Your task to perform on an android device: open device folders in google photos Image 0: 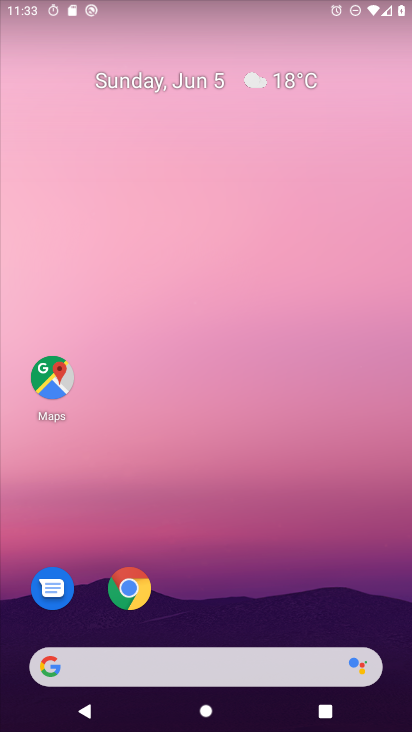
Step 0: drag from (269, 589) to (327, 291)
Your task to perform on an android device: open device folders in google photos Image 1: 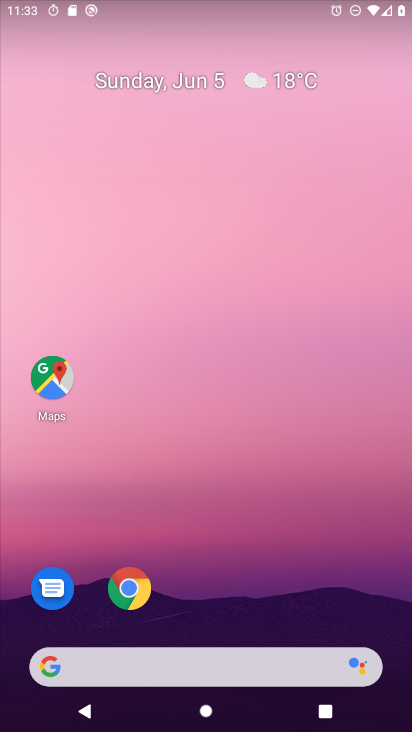
Step 1: drag from (258, 585) to (299, 196)
Your task to perform on an android device: open device folders in google photos Image 2: 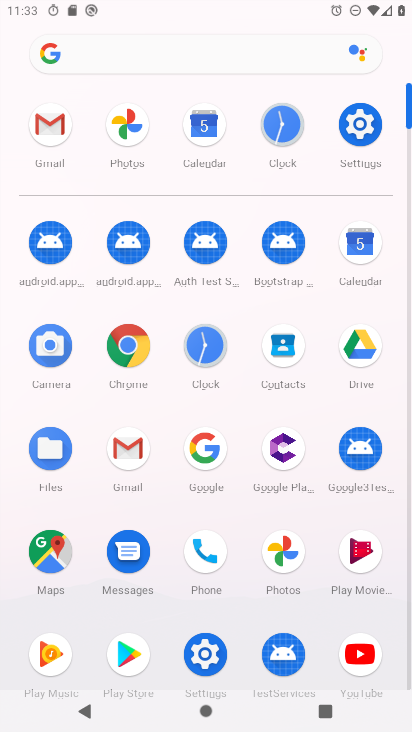
Step 2: click (280, 561)
Your task to perform on an android device: open device folders in google photos Image 3: 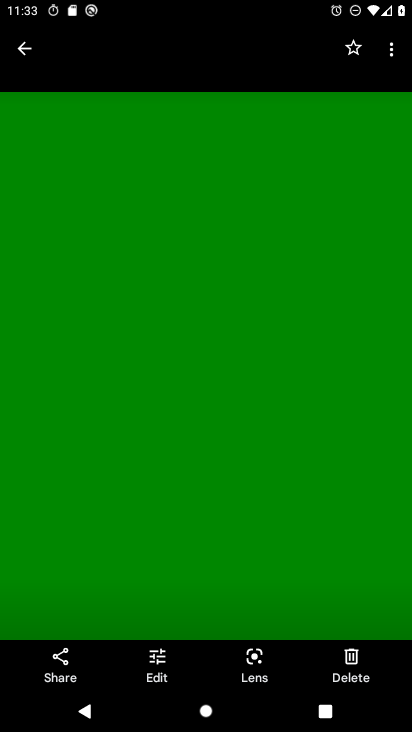
Step 3: press back button
Your task to perform on an android device: open device folders in google photos Image 4: 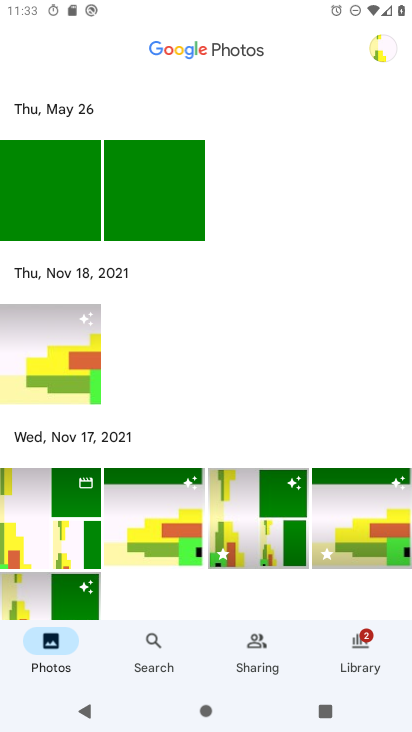
Step 4: click (383, 50)
Your task to perform on an android device: open device folders in google photos Image 5: 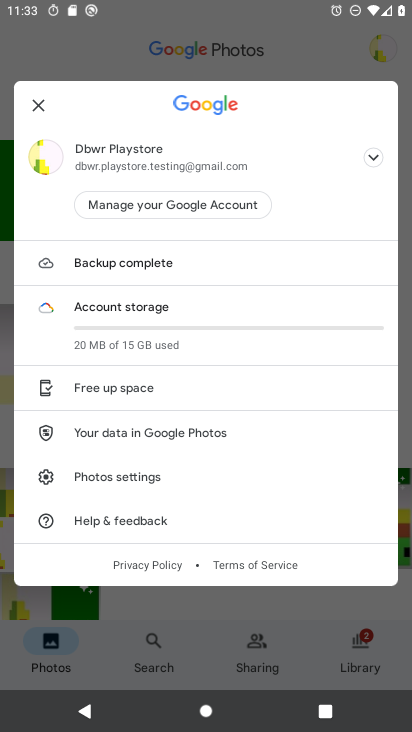
Step 5: task complete